Your task to perform on an android device: find snoozed emails in the gmail app Image 0: 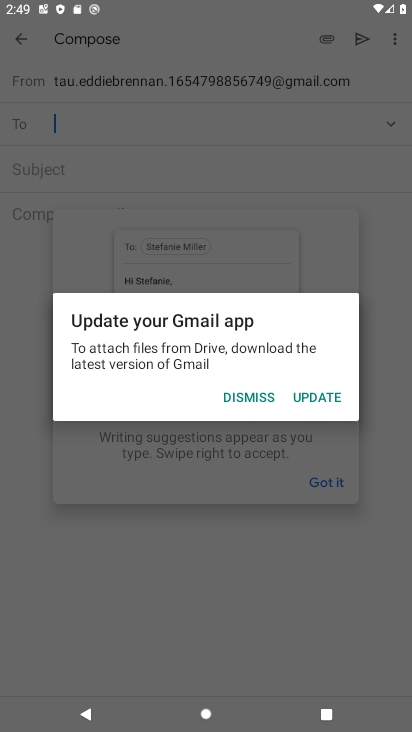
Step 0: press home button
Your task to perform on an android device: find snoozed emails in the gmail app Image 1: 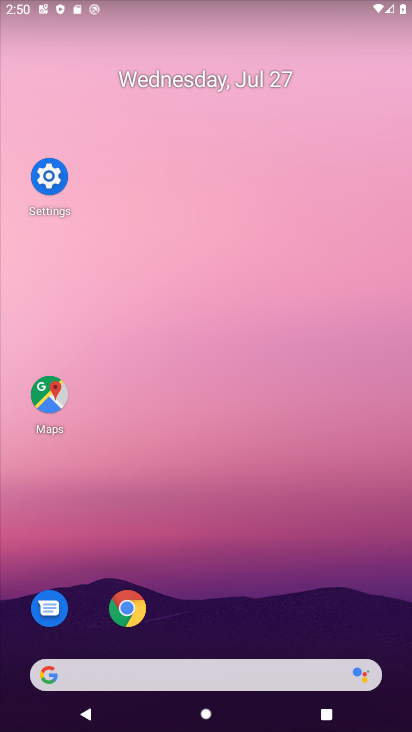
Step 1: drag from (245, 576) to (233, 119)
Your task to perform on an android device: find snoozed emails in the gmail app Image 2: 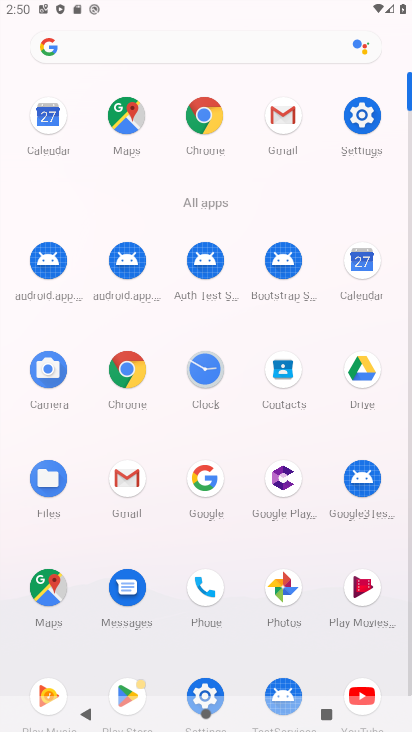
Step 2: click (284, 101)
Your task to perform on an android device: find snoozed emails in the gmail app Image 3: 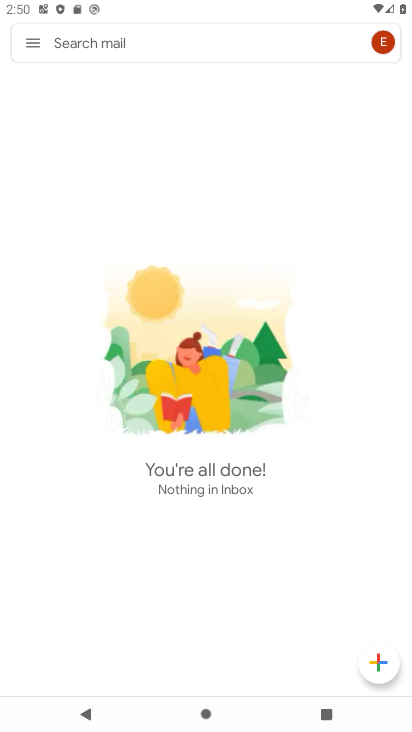
Step 3: click (28, 44)
Your task to perform on an android device: find snoozed emails in the gmail app Image 4: 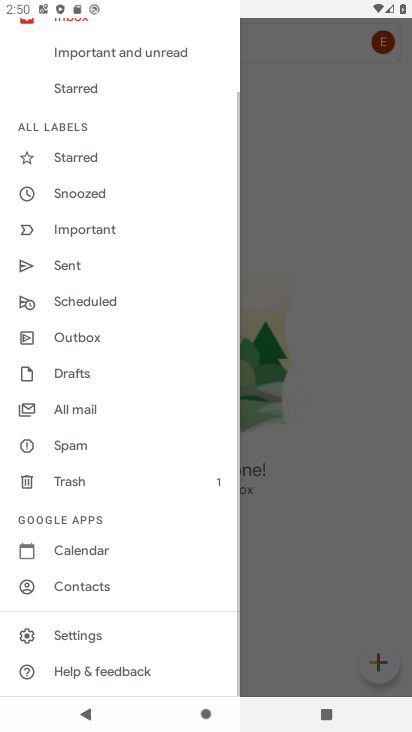
Step 4: click (90, 187)
Your task to perform on an android device: find snoozed emails in the gmail app Image 5: 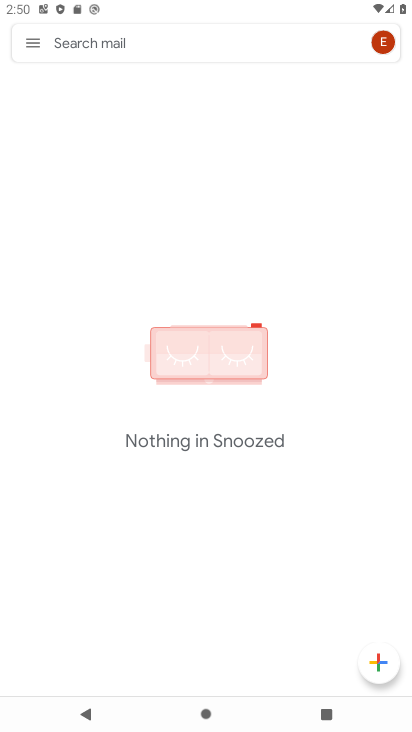
Step 5: task complete